Your task to perform on an android device: Open Android settings Image 0: 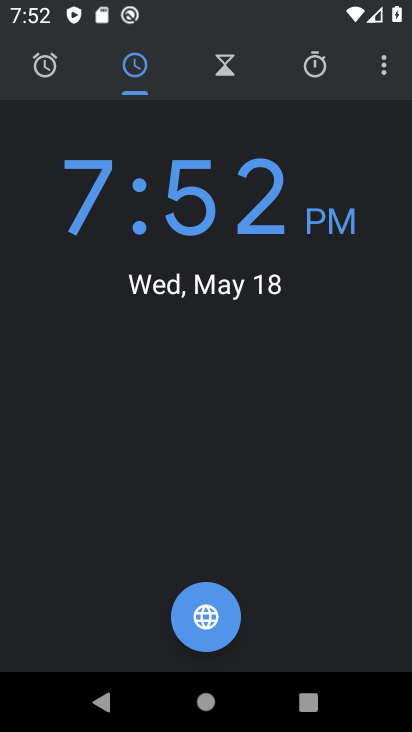
Step 0: drag from (359, 382) to (403, 382)
Your task to perform on an android device: Open Android settings Image 1: 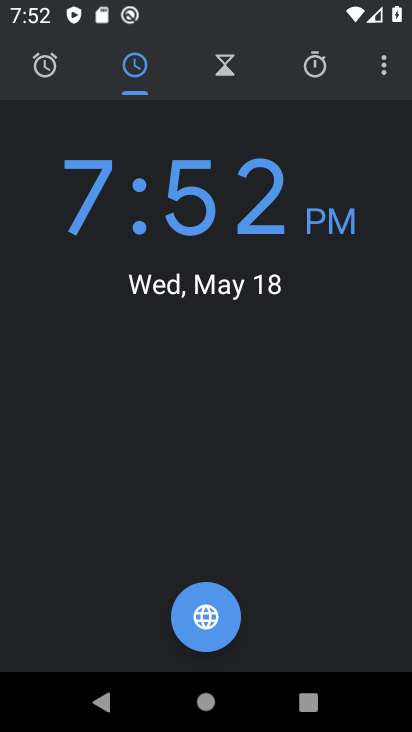
Step 1: press home button
Your task to perform on an android device: Open Android settings Image 2: 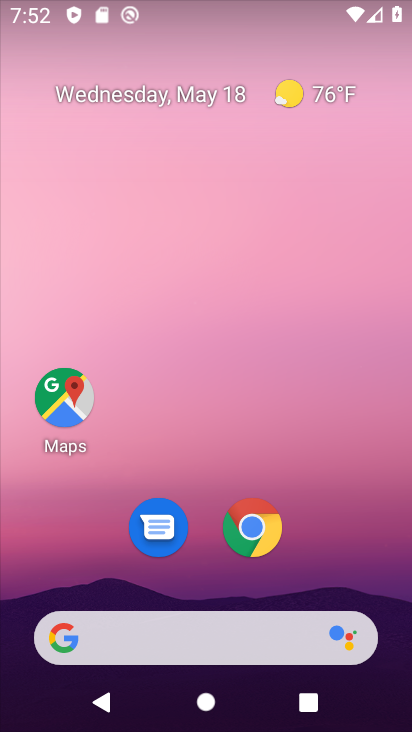
Step 2: drag from (393, 703) to (386, 37)
Your task to perform on an android device: Open Android settings Image 3: 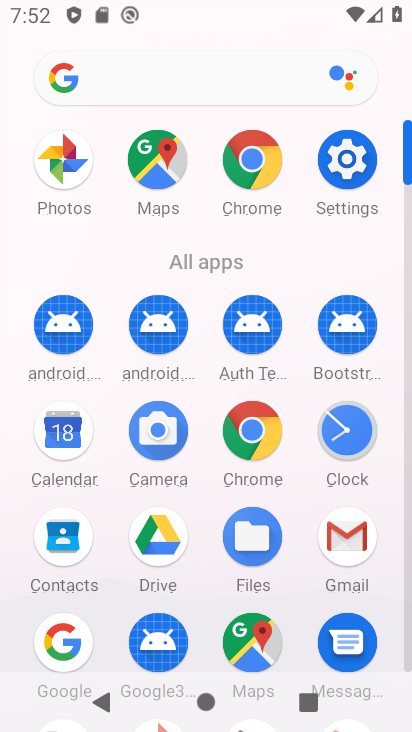
Step 3: click (342, 161)
Your task to perform on an android device: Open Android settings Image 4: 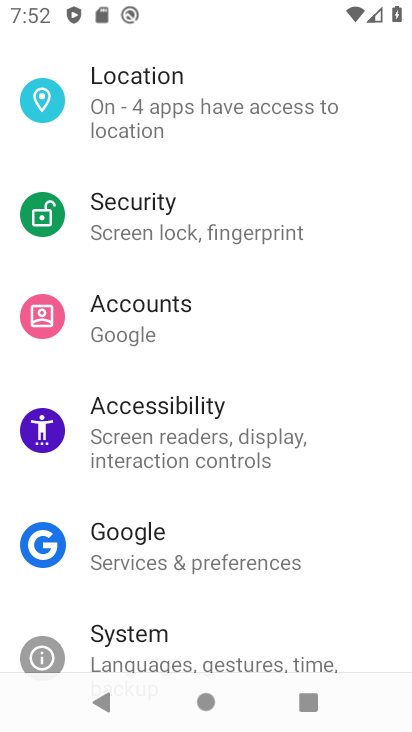
Step 4: task complete